Your task to perform on an android device: set an alarm Image 0: 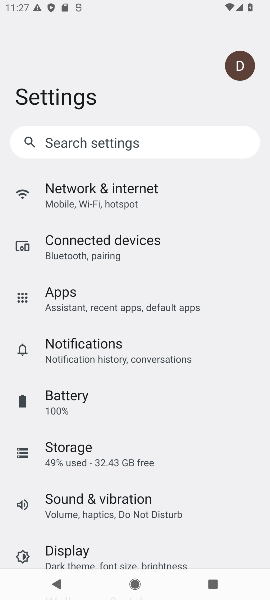
Step 0: press home button
Your task to perform on an android device: set an alarm Image 1: 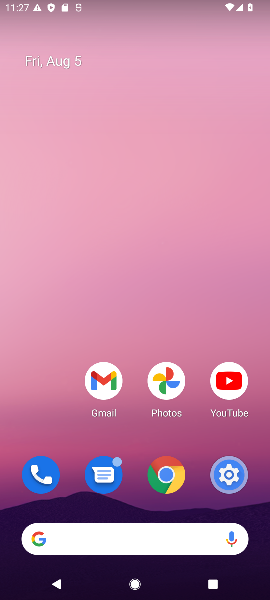
Step 1: drag from (134, 514) to (188, 93)
Your task to perform on an android device: set an alarm Image 2: 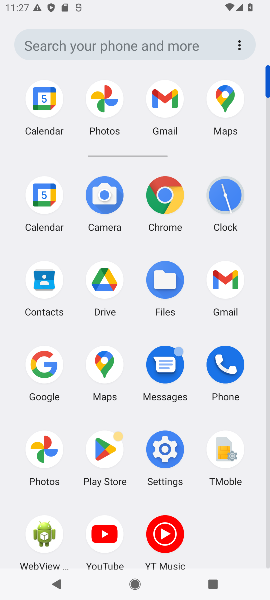
Step 2: click (224, 215)
Your task to perform on an android device: set an alarm Image 3: 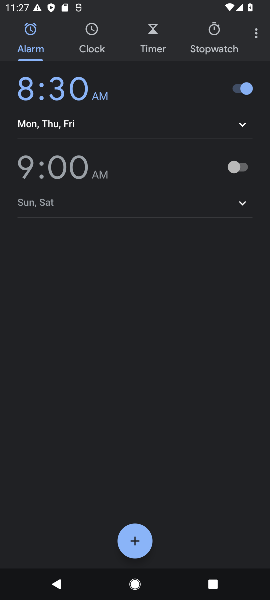
Step 3: click (71, 175)
Your task to perform on an android device: set an alarm Image 4: 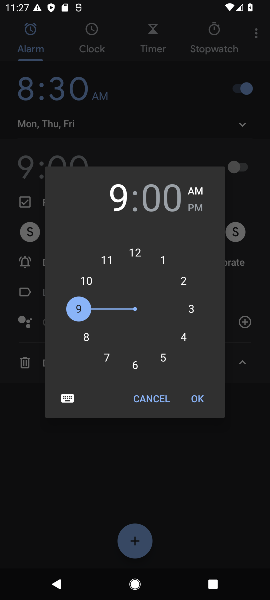
Step 4: click (105, 356)
Your task to perform on an android device: set an alarm Image 5: 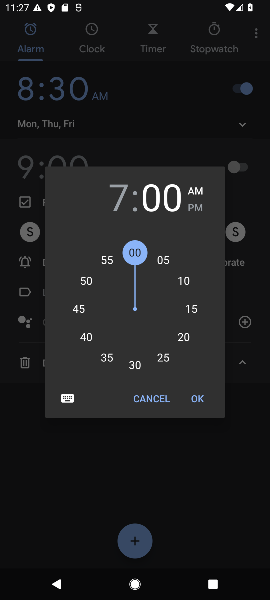
Step 5: click (191, 313)
Your task to perform on an android device: set an alarm Image 6: 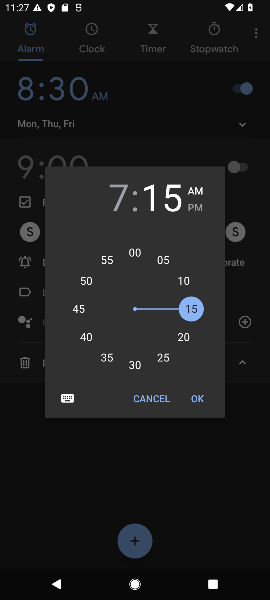
Step 6: click (203, 398)
Your task to perform on an android device: set an alarm Image 7: 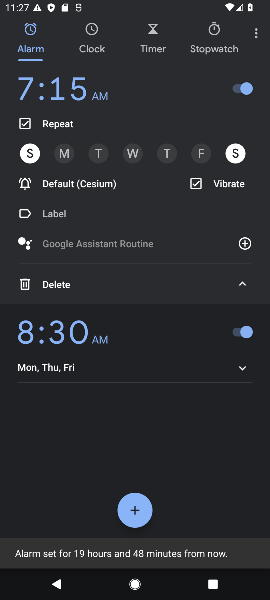
Step 7: click (133, 161)
Your task to perform on an android device: set an alarm Image 8: 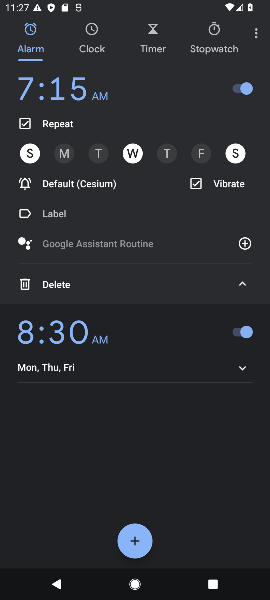
Step 8: click (206, 156)
Your task to perform on an android device: set an alarm Image 9: 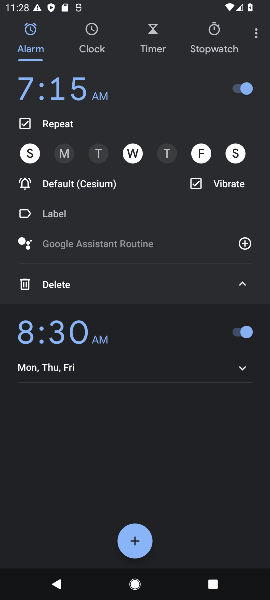
Step 9: task complete